Your task to perform on an android device: Open the Play Movies app and select the watchlist tab. Image 0: 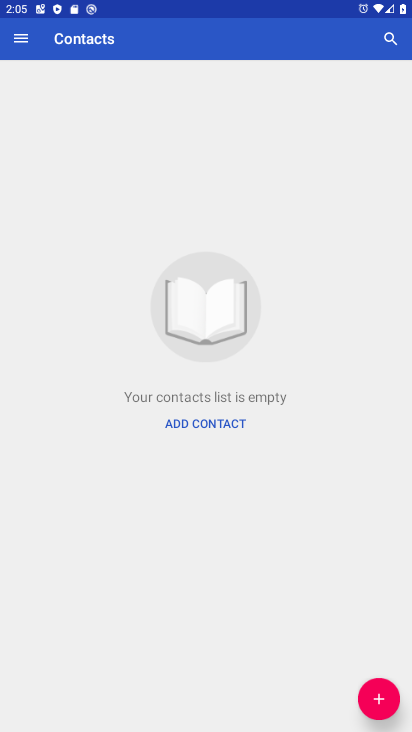
Step 0: press home button
Your task to perform on an android device: Open the Play Movies app and select the watchlist tab. Image 1: 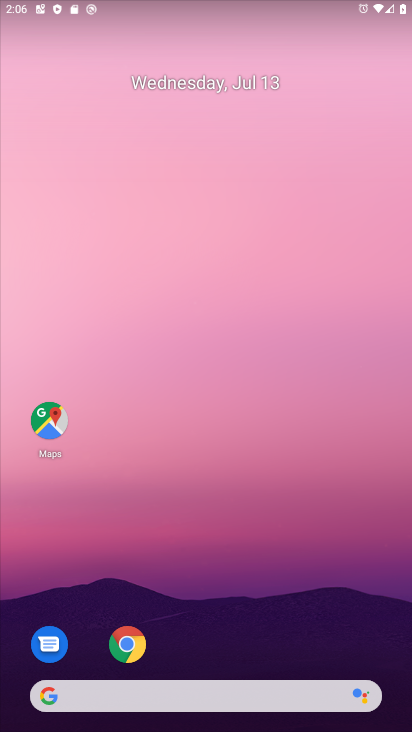
Step 1: drag from (208, 673) to (186, 110)
Your task to perform on an android device: Open the Play Movies app and select the watchlist tab. Image 2: 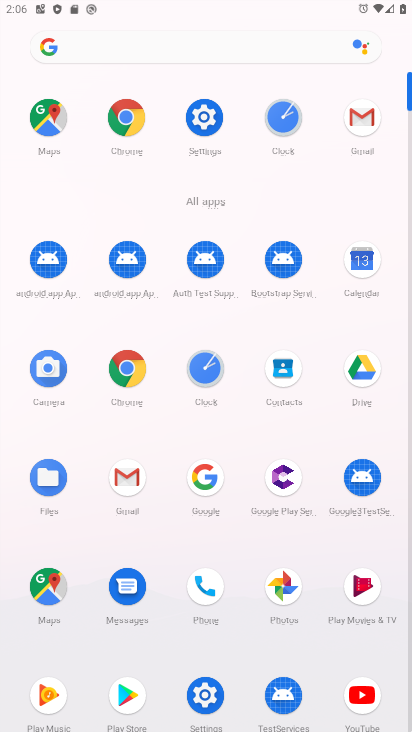
Step 2: click (360, 597)
Your task to perform on an android device: Open the Play Movies app and select the watchlist tab. Image 3: 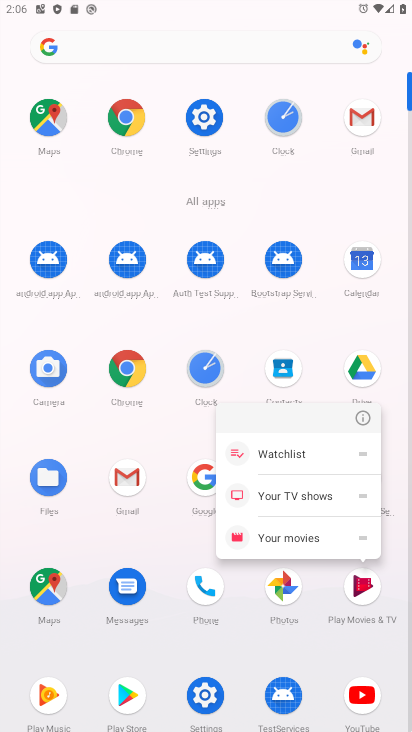
Step 3: click (363, 597)
Your task to perform on an android device: Open the Play Movies app and select the watchlist tab. Image 4: 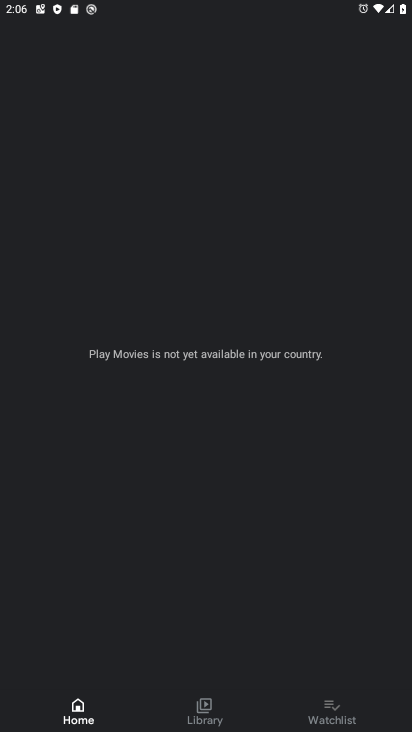
Step 4: click (320, 710)
Your task to perform on an android device: Open the Play Movies app and select the watchlist tab. Image 5: 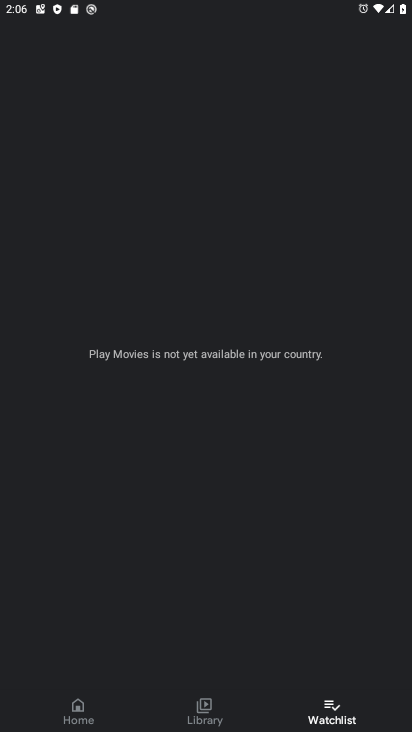
Step 5: task complete